Your task to perform on an android device: open a bookmark in the chrome app Image 0: 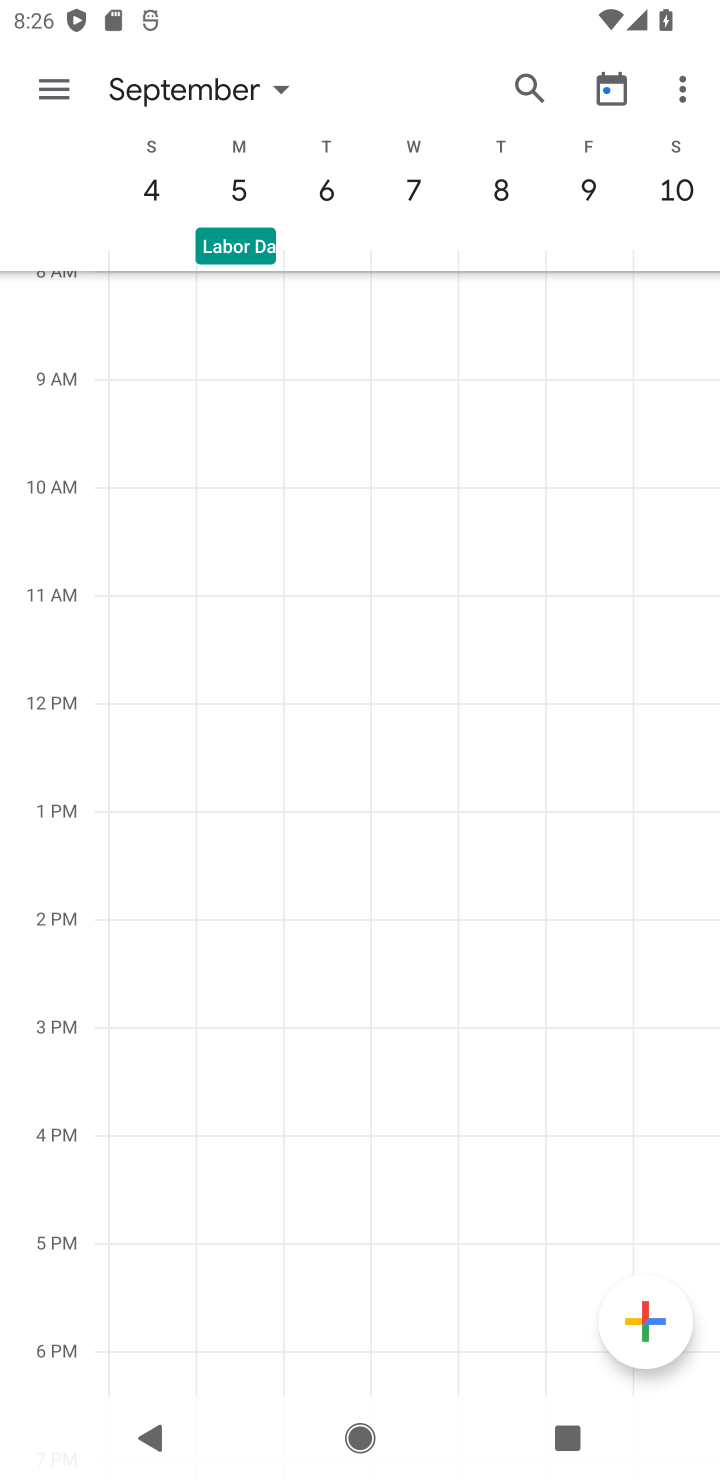
Step 0: press home button
Your task to perform on an android device: open a bookmark in the chrome app Image 1: 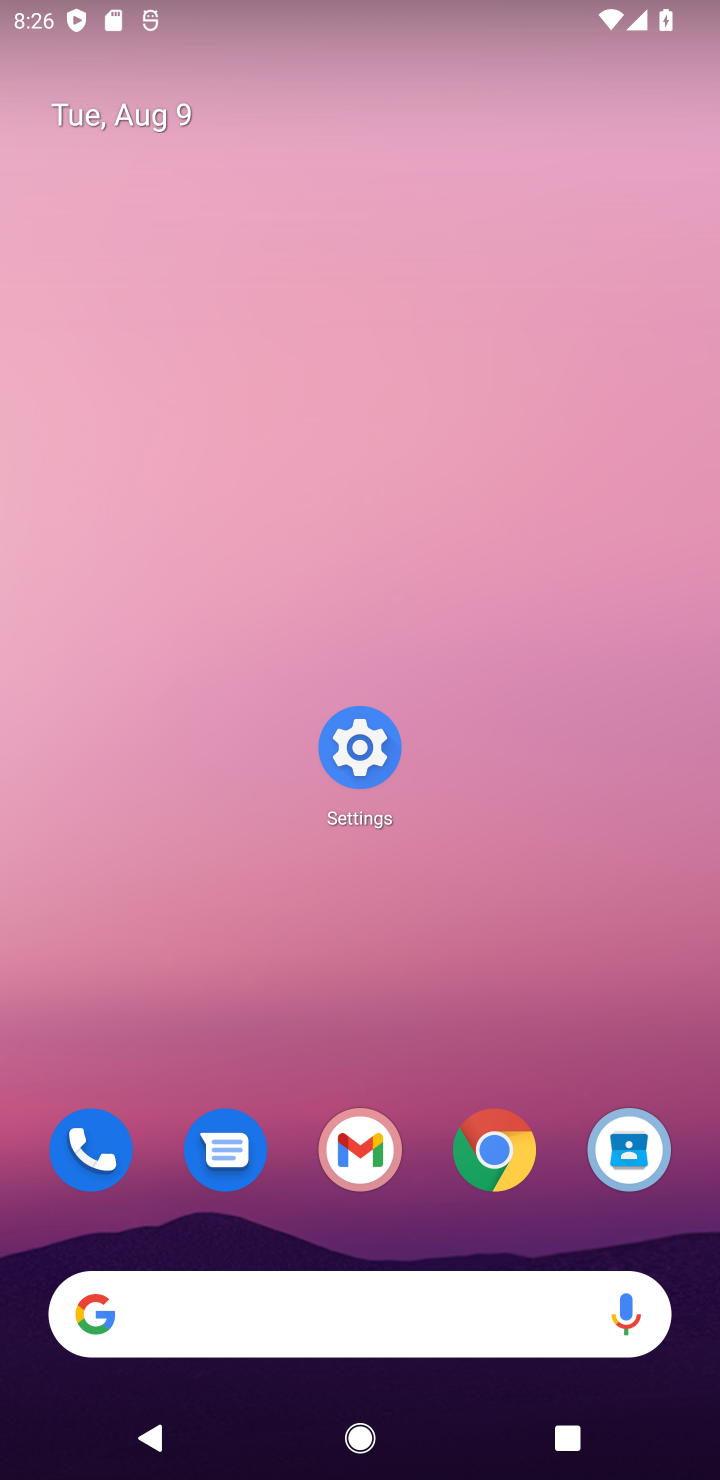
Step 1: click (496, 1146)
Your task to perform on an android device: open a bookmark in the chrome app Image 2: 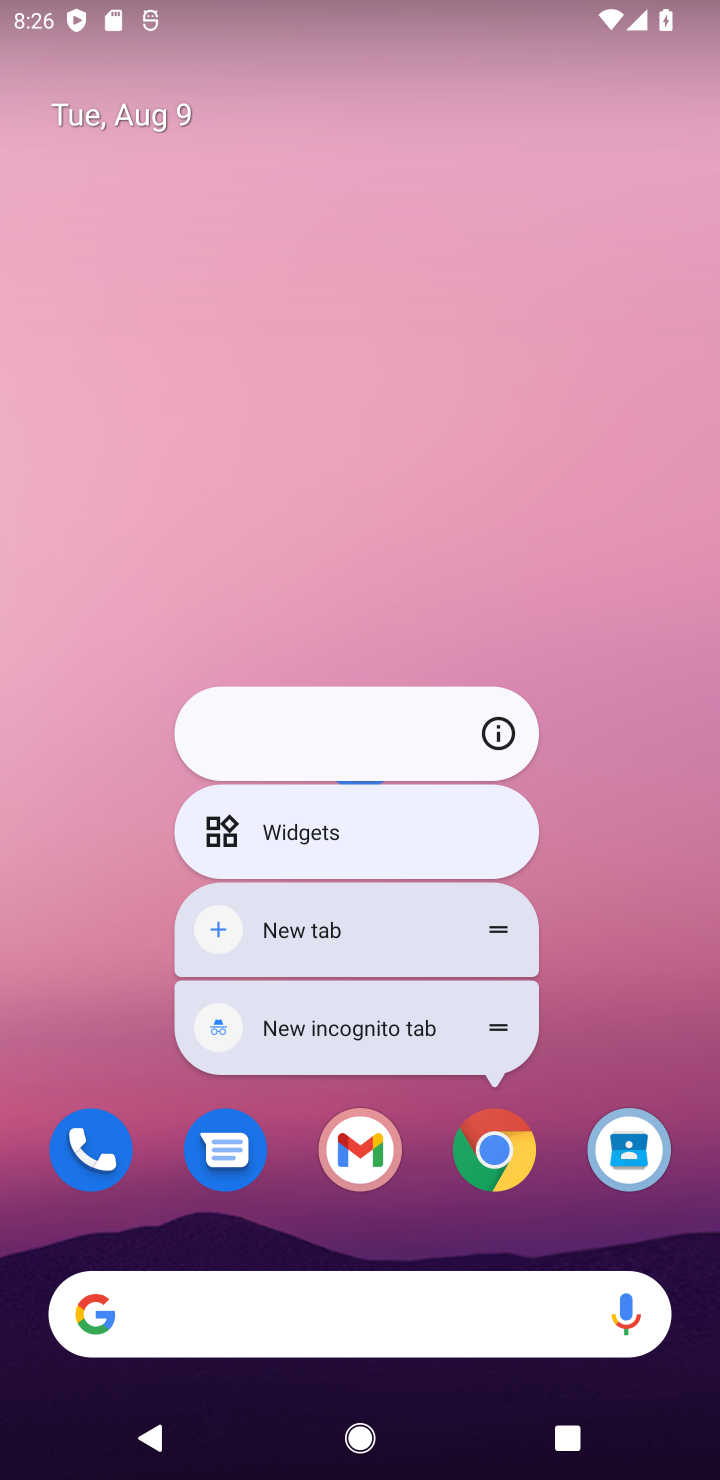
Step 2: click (496, 1150)
Your task to perform on an android device: open a bookmark in the chrome app Image 3: 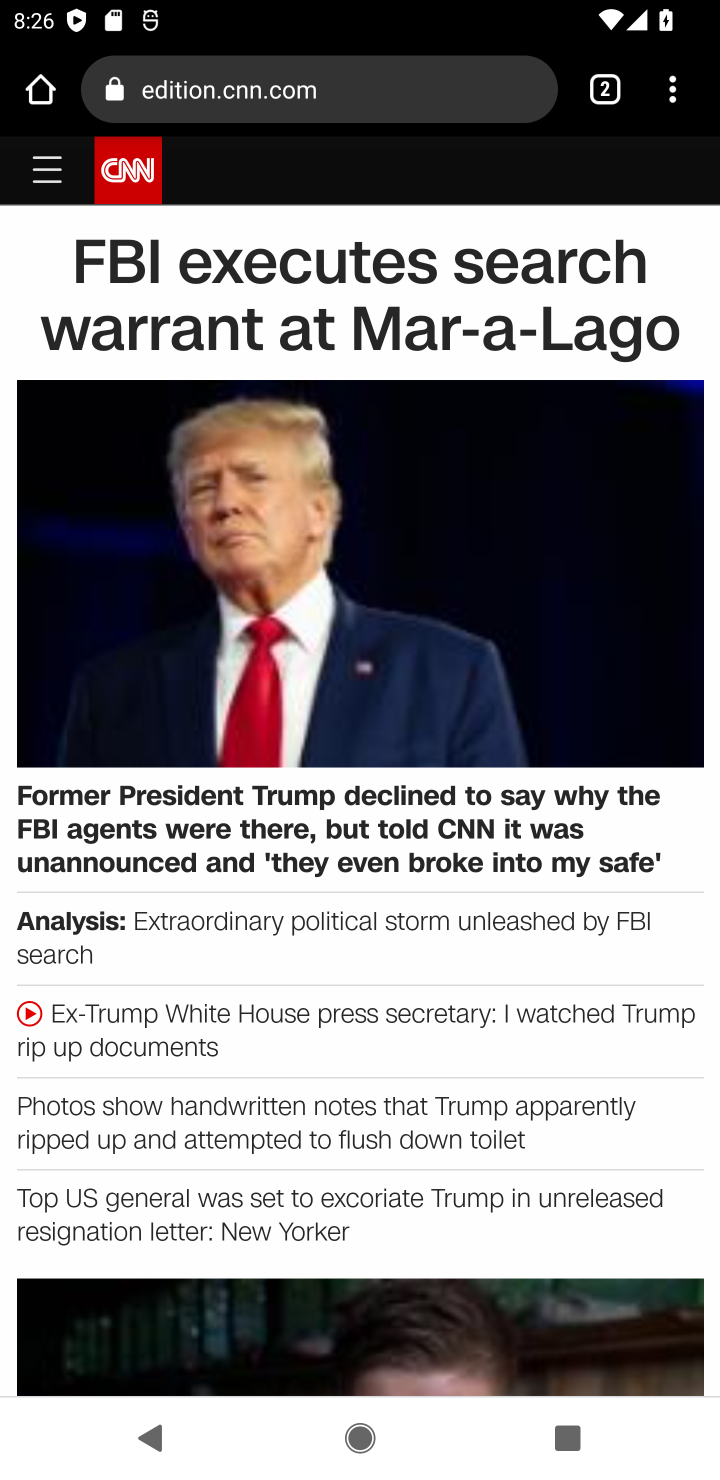
Step 3: task complete